Your task to perform on an android device: Go to privacy settings Image 0: 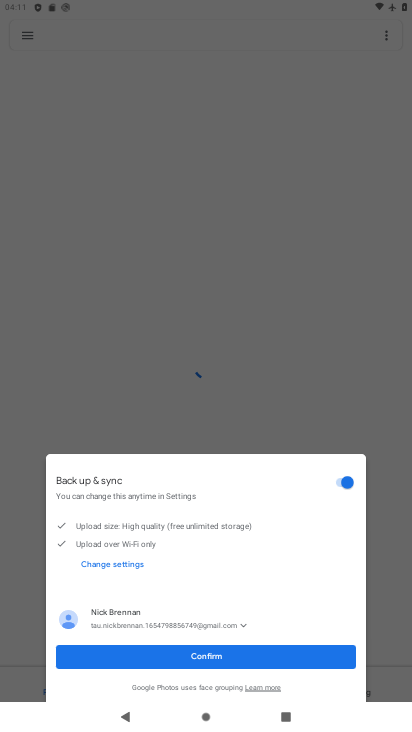
Step 0: press home button
Your task to perform on an android device: Go to privacy settings Image 1: 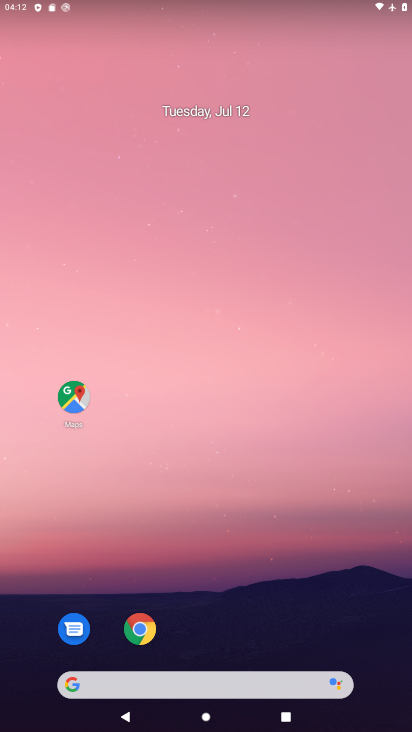
Step 1: drag from (321, 633) to (272, 90)
Your task to perform on an android device: Go to privacy settings Image 2: 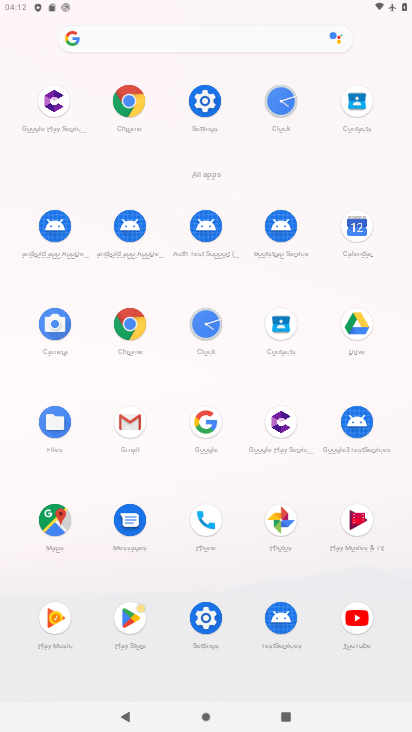
Step 2: click (206, 98)
Your task to perform on an android device: Go to privacy settings Image 3: 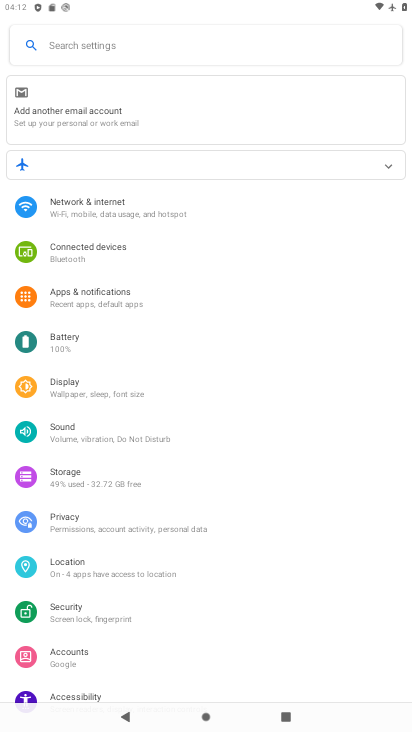
Step 3: click (67, 517)
Your task to perform on an android device: Go to privacy settings Image 4: 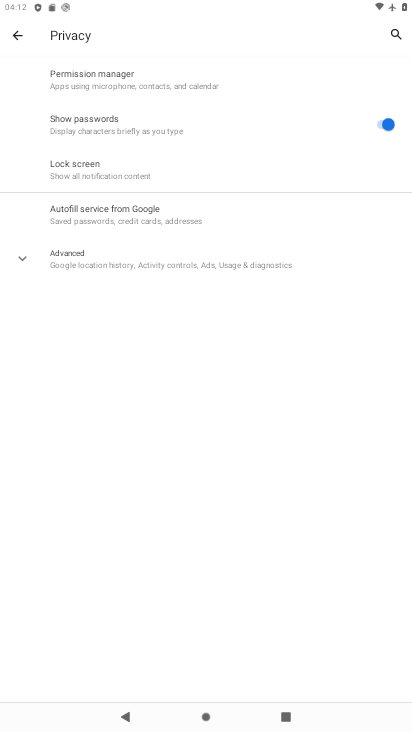
Step 4: task complete